Your task to perform on an android device: Turn on the flashlight Image 0: 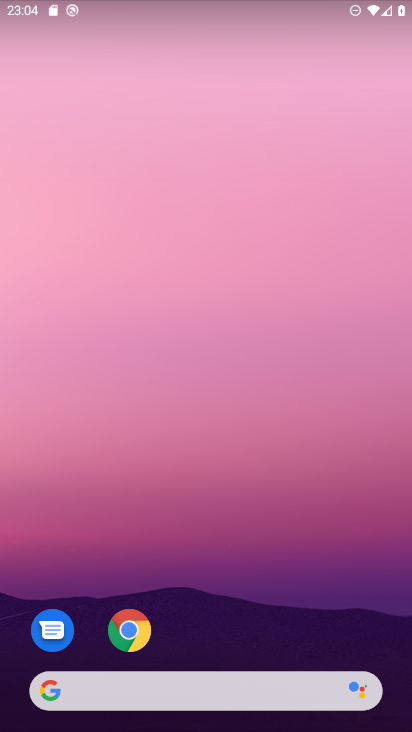
Step 0: drag from (245, 455) to (282, 8)
Your task to perform on an android device: Turn on the flashlight Image 1: 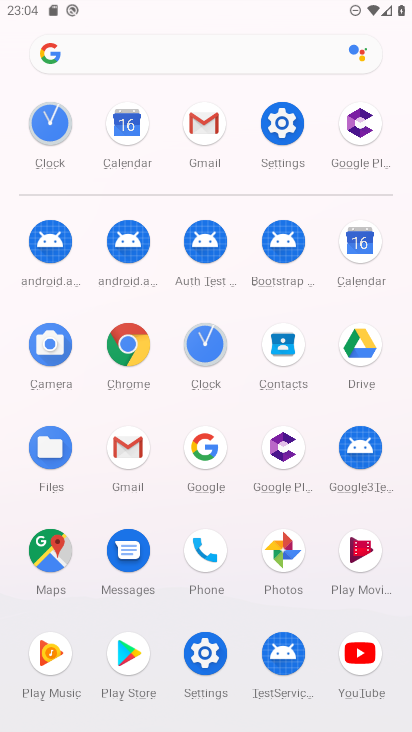
Step 1: click (280, 114)
Your task to perform on an android device: Turn on the flashlight Image 2: 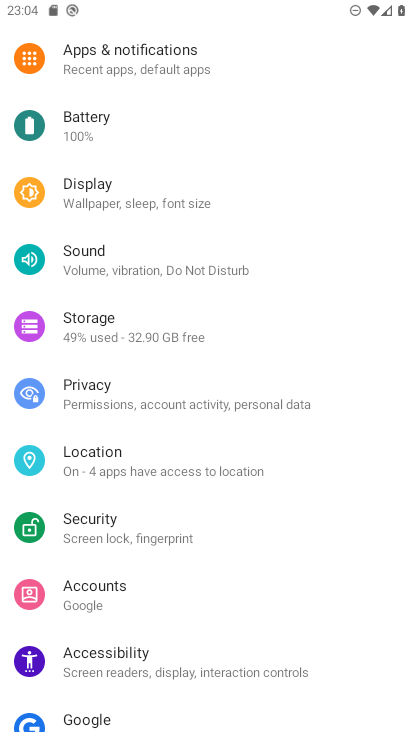
Step 2: drag from (238, 234) to (303, 545)
Your task to perform on an android device: Turn on the flashlight Image 3: 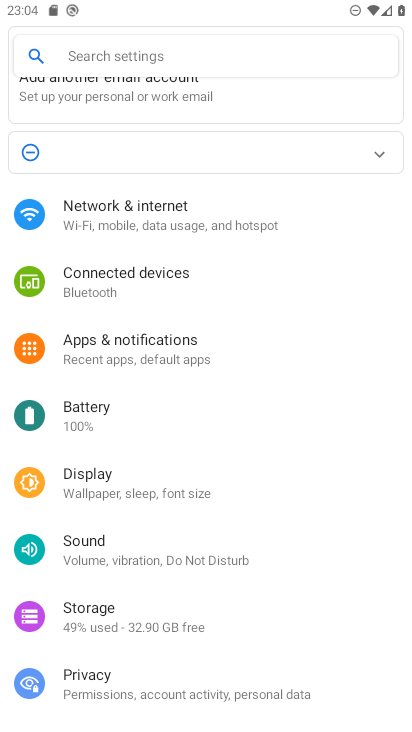
Step 3: drag from (255, 322) to (263, 612)
Your task to perform on an android device: Turn on the flashlight Image 4: 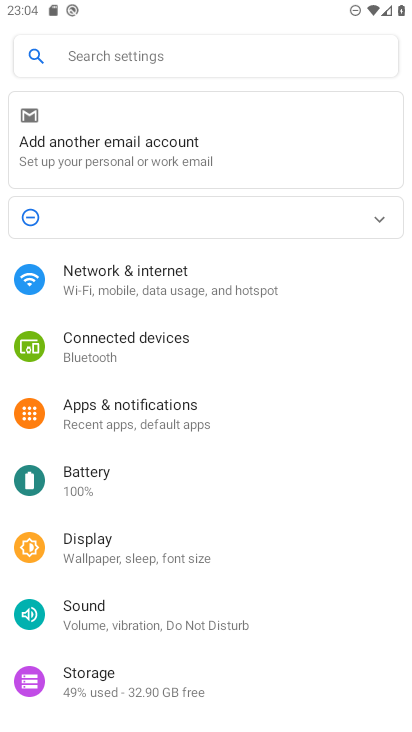
Step 4: click (244, 50)
Your task to perform on an android device: Turn on the flashlight Image 5: 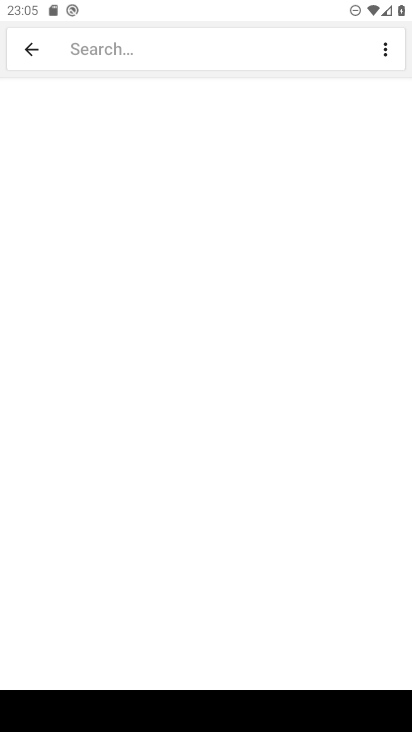
Step 5: type "Flashlight"
Your task to perform on an android device: Turn on the flashlight Image 6: 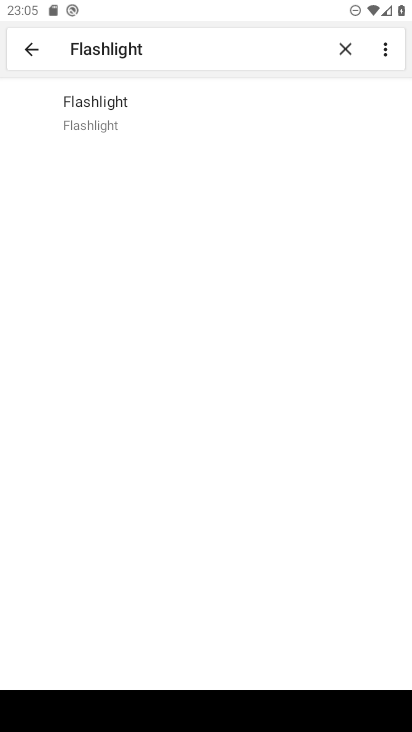
Step 6: click (107, 106)
Your task to perform on an android device: Turn on the flashlight Image 7: 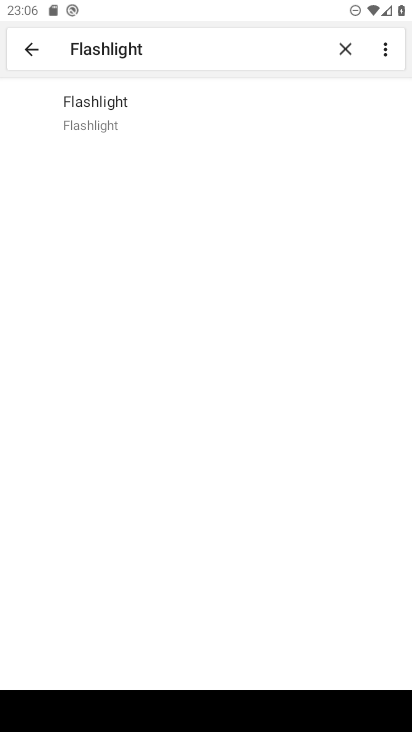
Step 7: task complete